Your task to perform on an android device: open app "Move to iOS" (install if not already installed) and go to login screen Image 0: 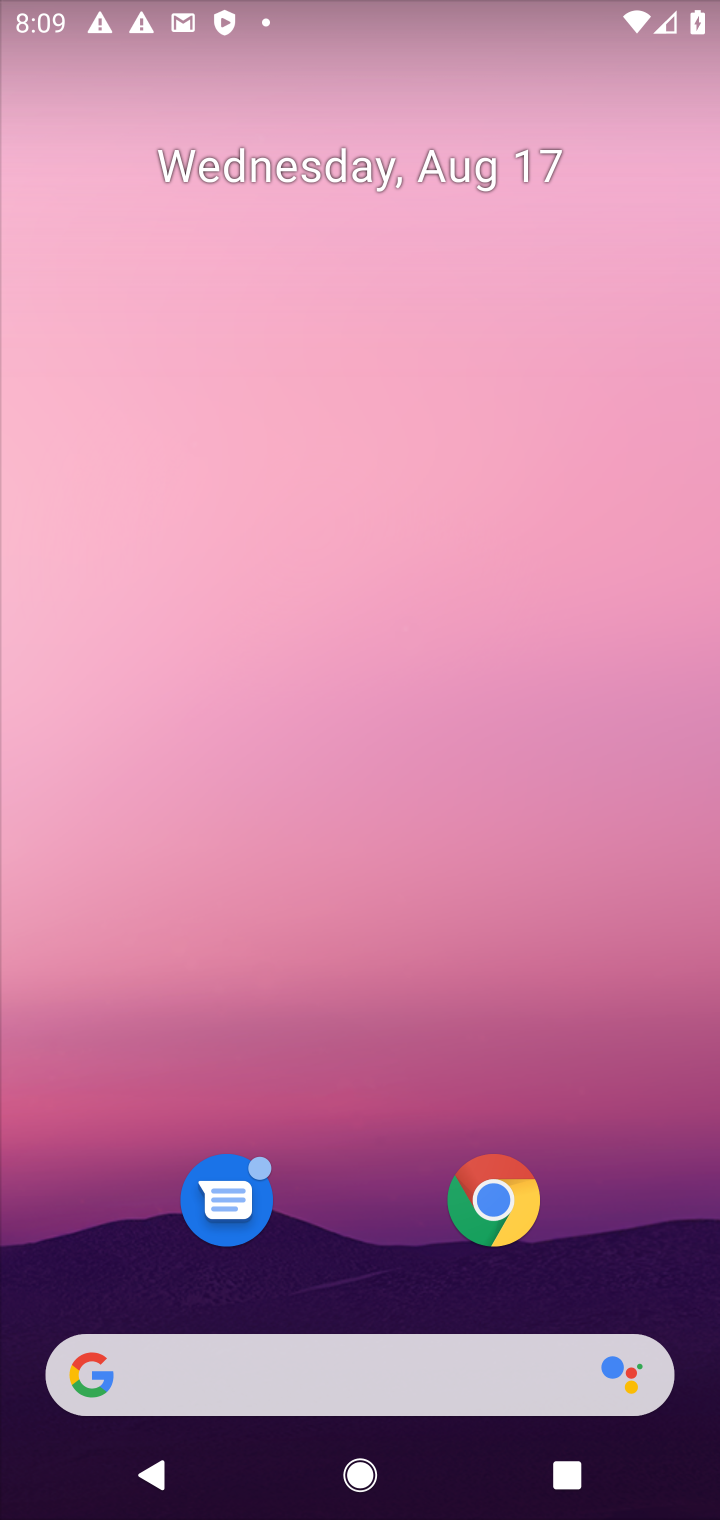
Step 0: drag from (269, 1398) to (318, 214)
Your task to perform on an android device: open app "Move to iOS" (install if not already installed) and go to login screen Image 1: 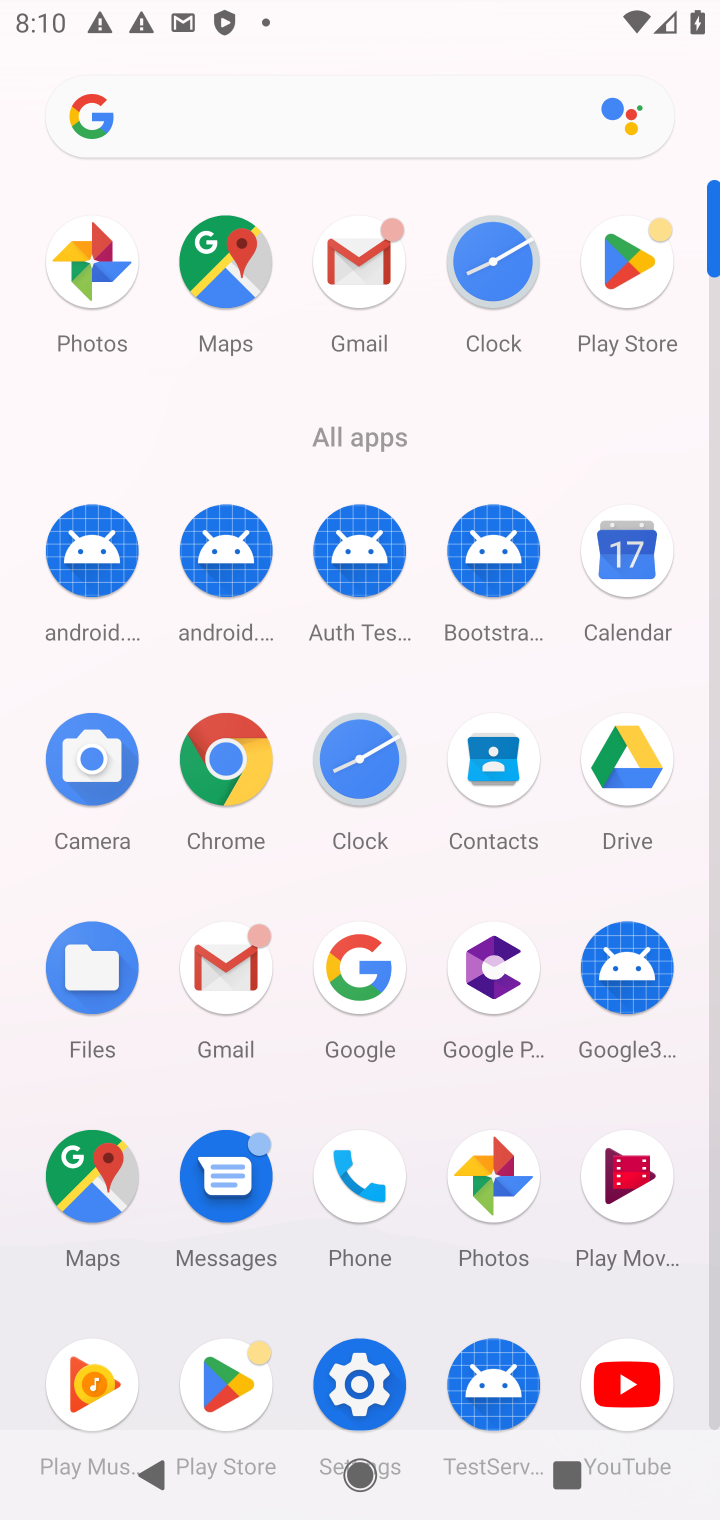
Step 1: click (635, 259)
Your task to perform on an android device: open app "Move to iOS" (install if not already installed) and go to login screen Image 2: 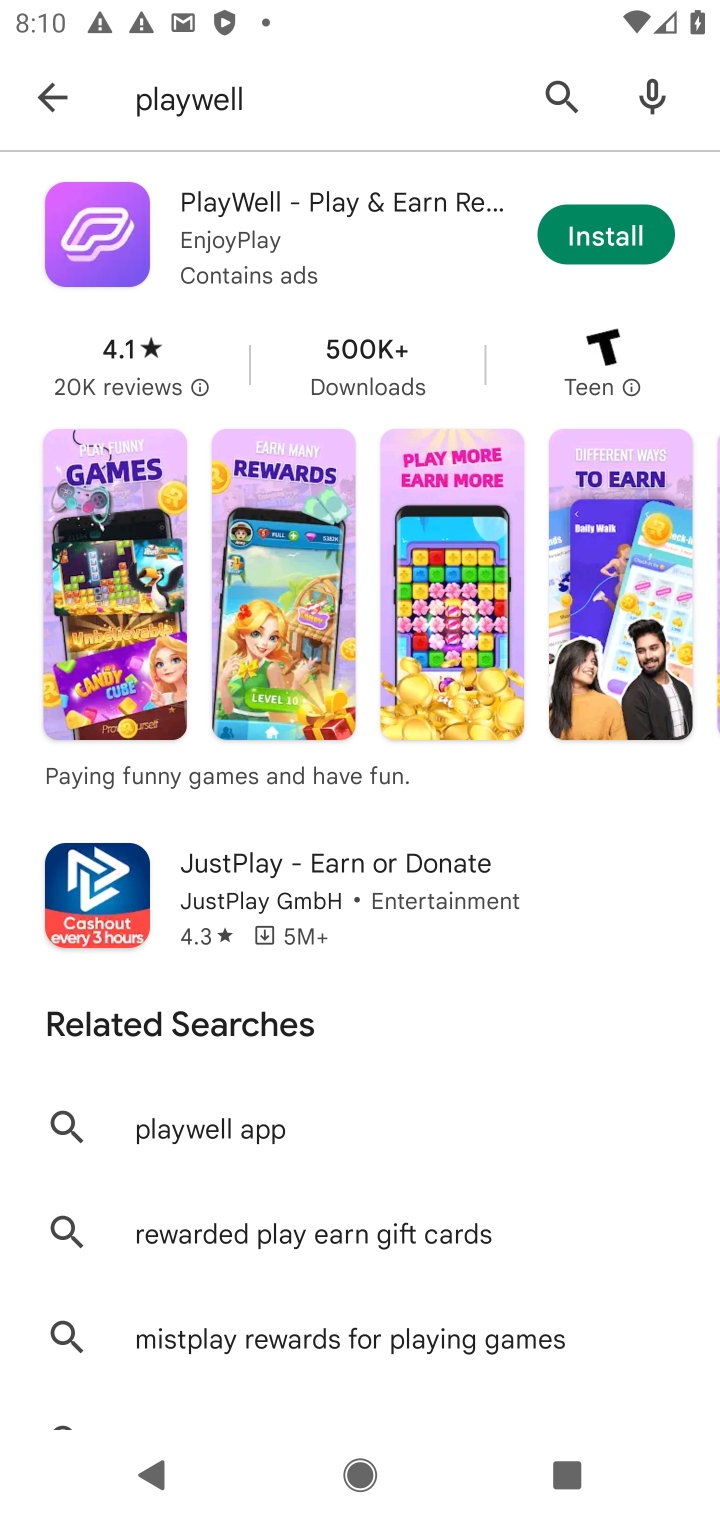
Step 2: press back button
Your task to perform on an android device: open app "Move to iOS" (install if not already installed) and go to login screen Image 3: 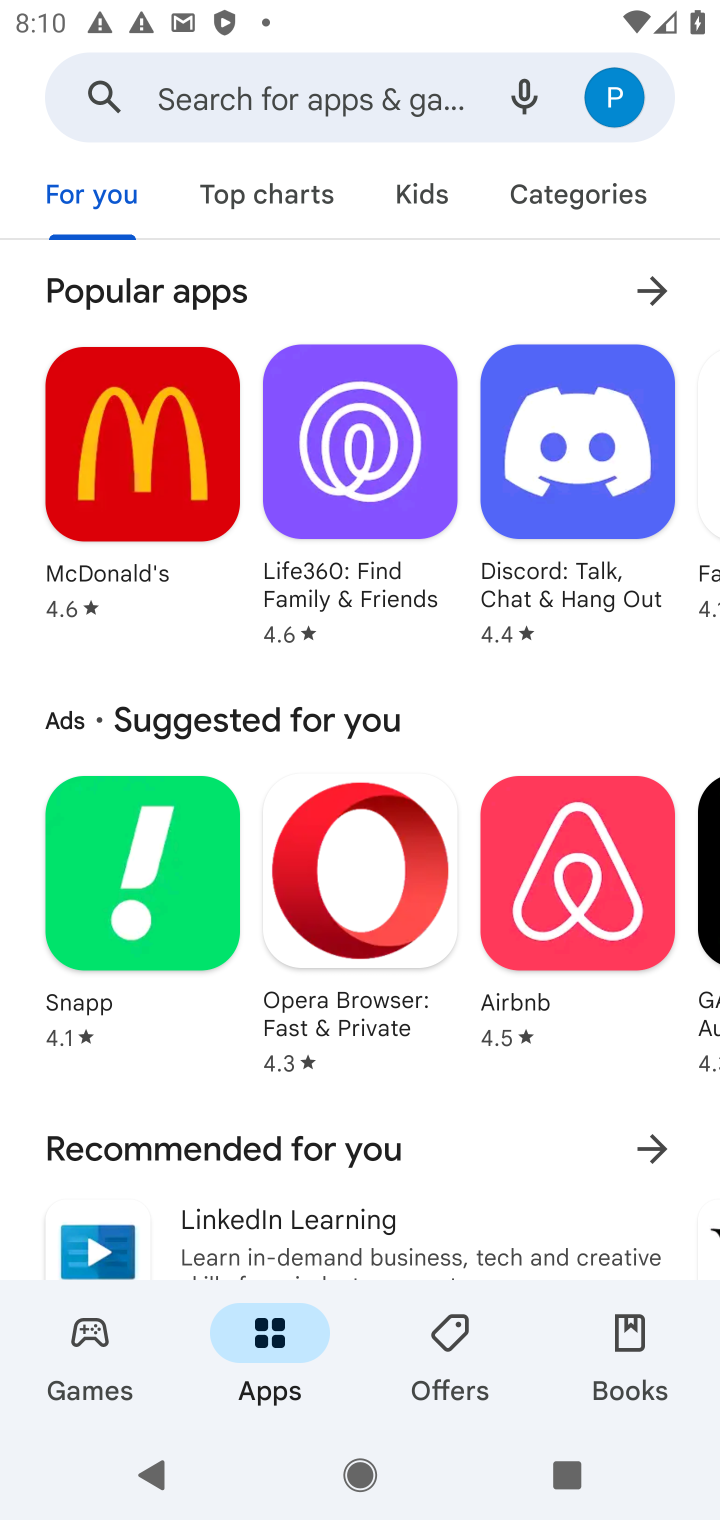
Step 3: click (410, 93)
Your task to perform on an android device: open app "Move to iOS" (install if not already installed) and go to login screen Image 4: 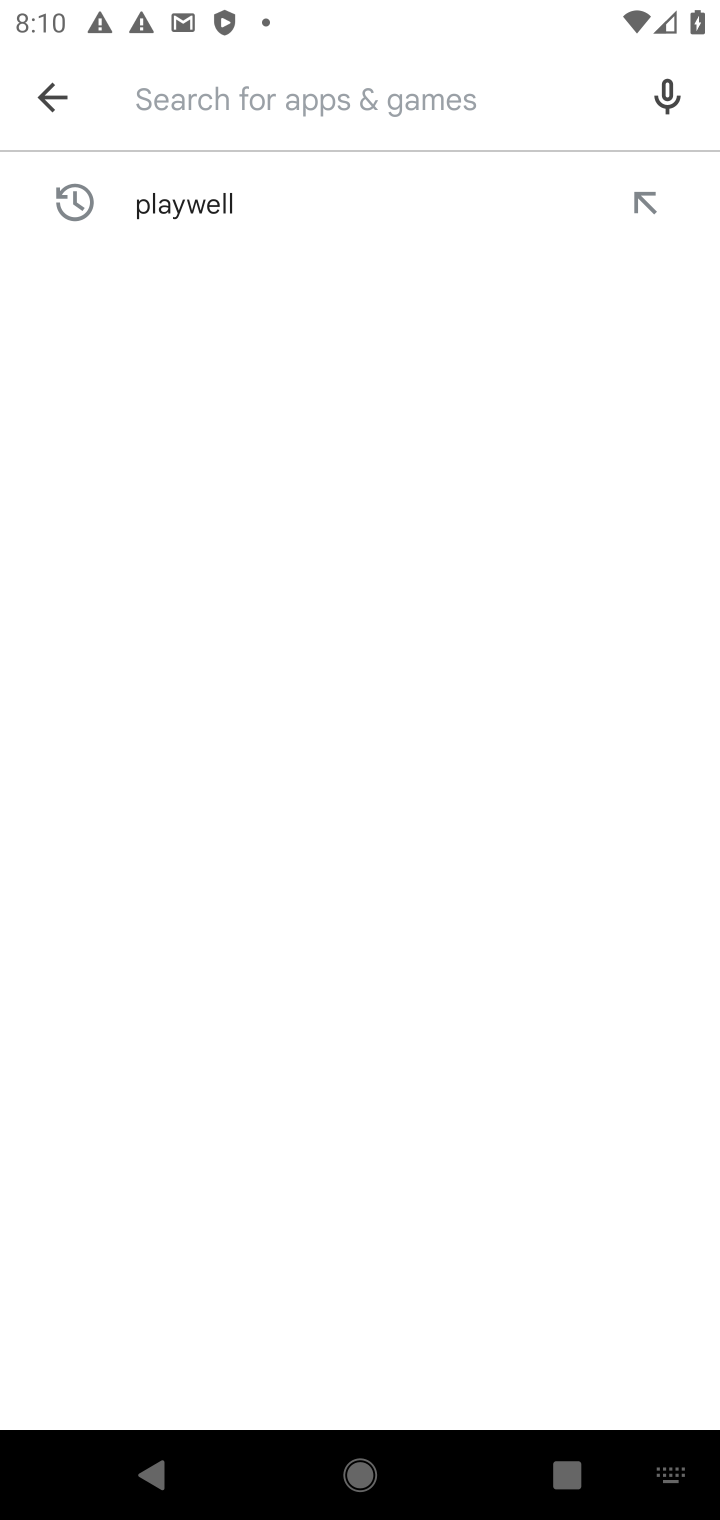
Step 4: type "Move to iOS"
Your task to perform on an android device: open app "Move to iOS" (install if not already installed) and go to login screen Image 5: 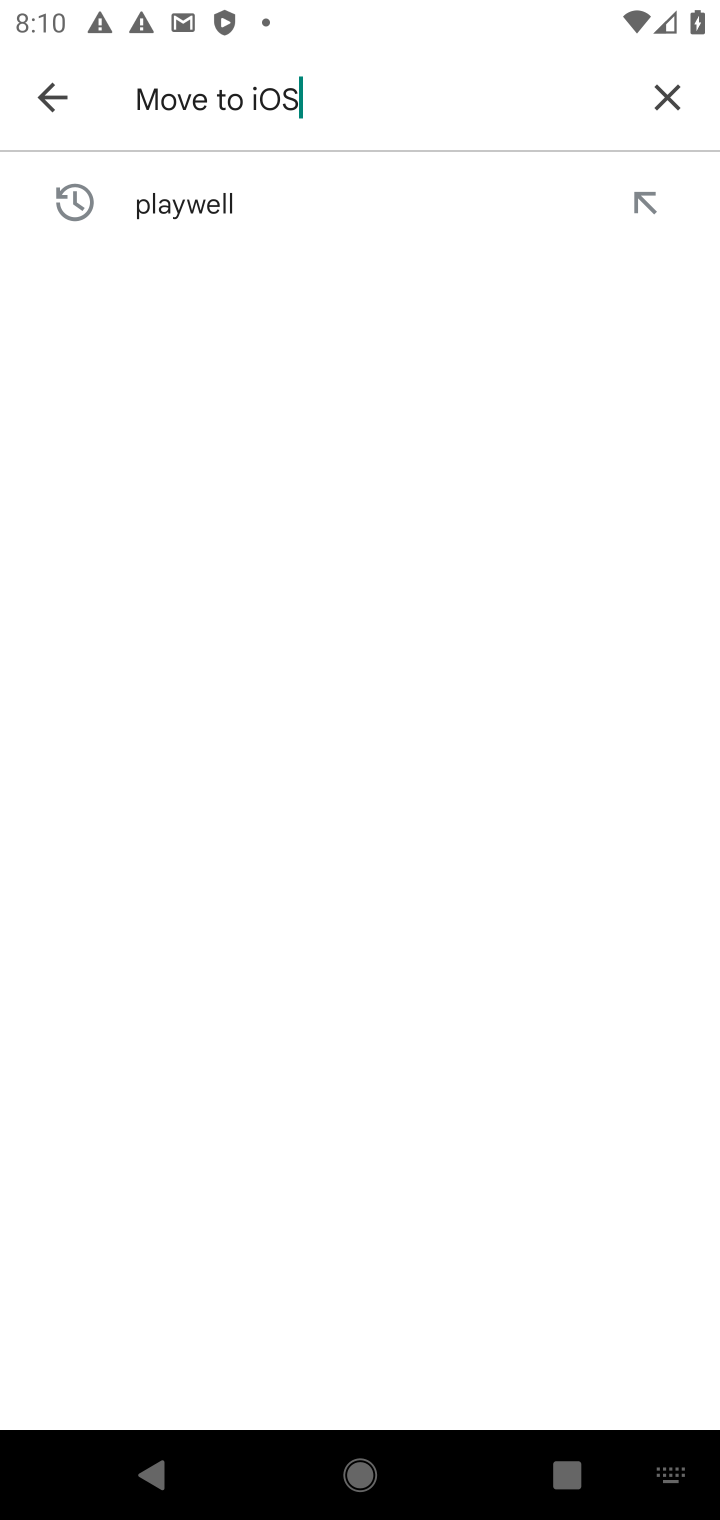
Step 5: type ""
Your task to perform on an android device: open app "Move to iOS" (install if not already installed) and go to login screen Image 6: 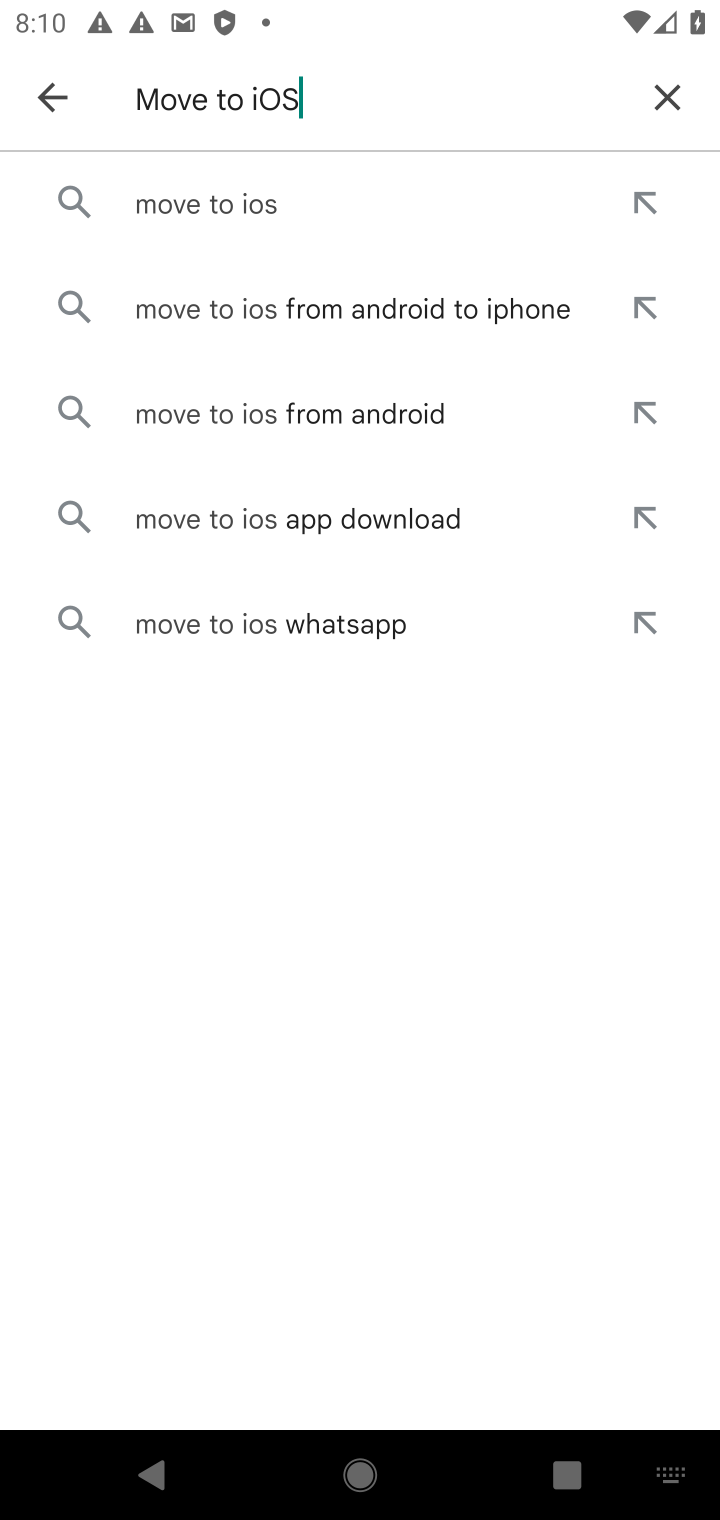
Step 6: click (242, 212)
Your task to perform on an android device: open app "Move to iOS" (install if not already installed) and go to login screen Image 7: 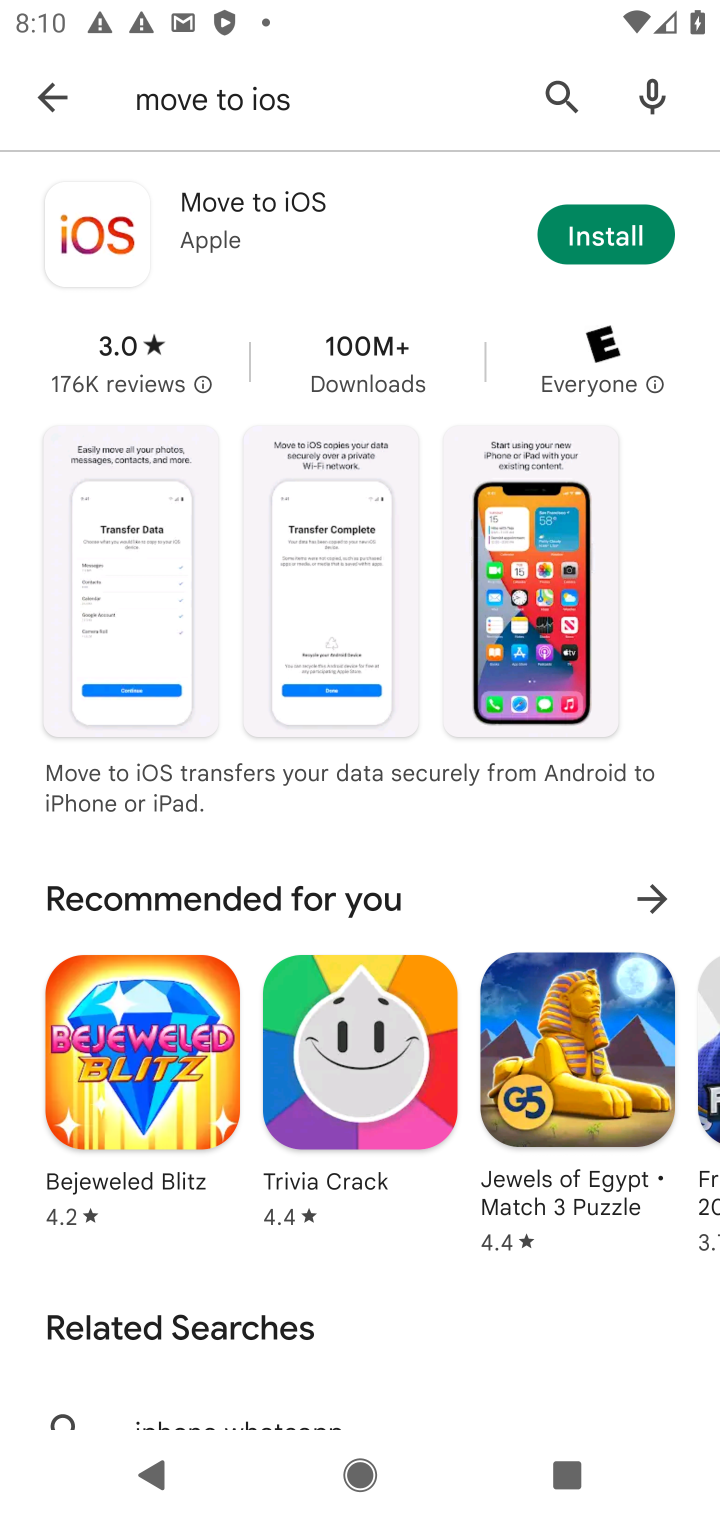
Step 7: click (608, 241)
Your task to perform on an android device: open app "Move to iOS" (install if not already installed) and go to login screen Image 8: 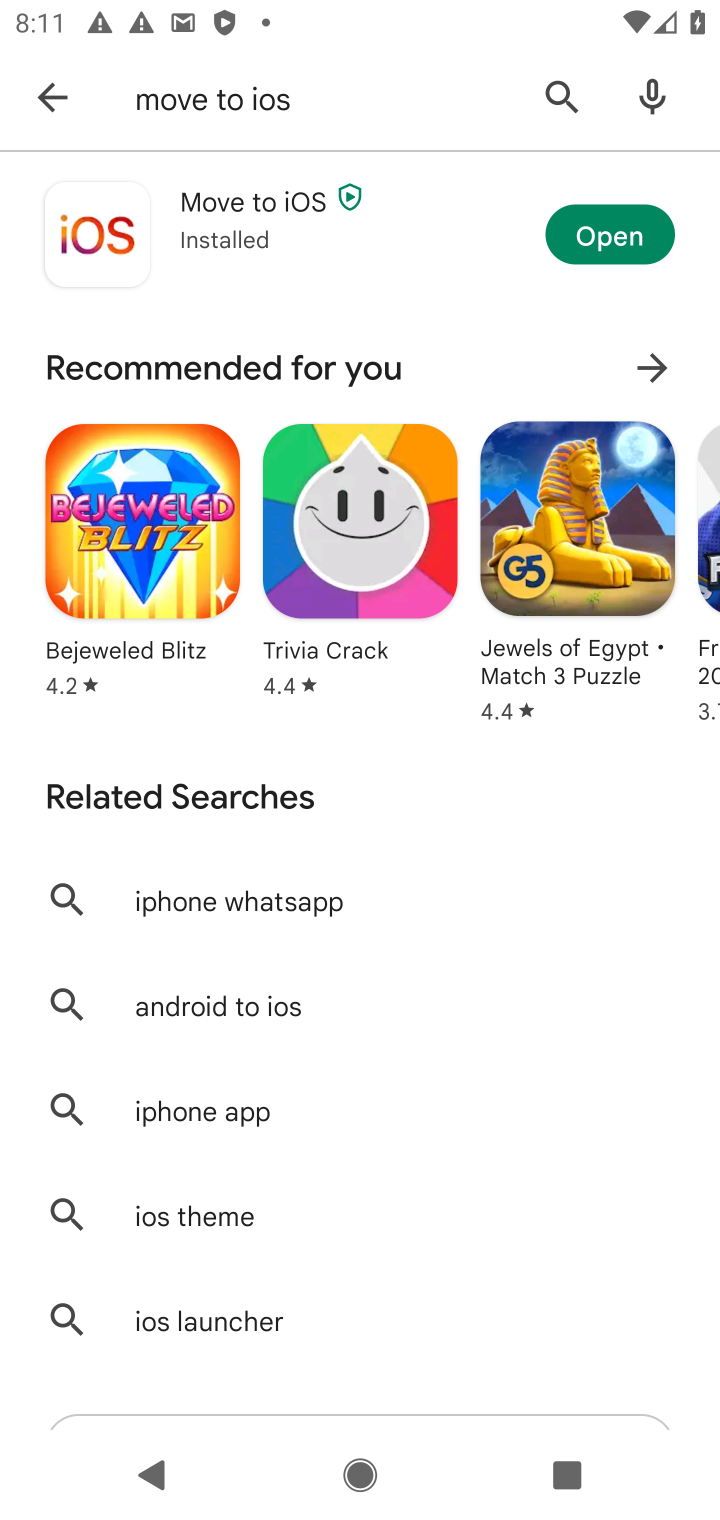
Step 8: click (608, 241)
Your task to perform on an android device: open app "Move to iOS" (install if not already installed) and go to login screen Image 9: 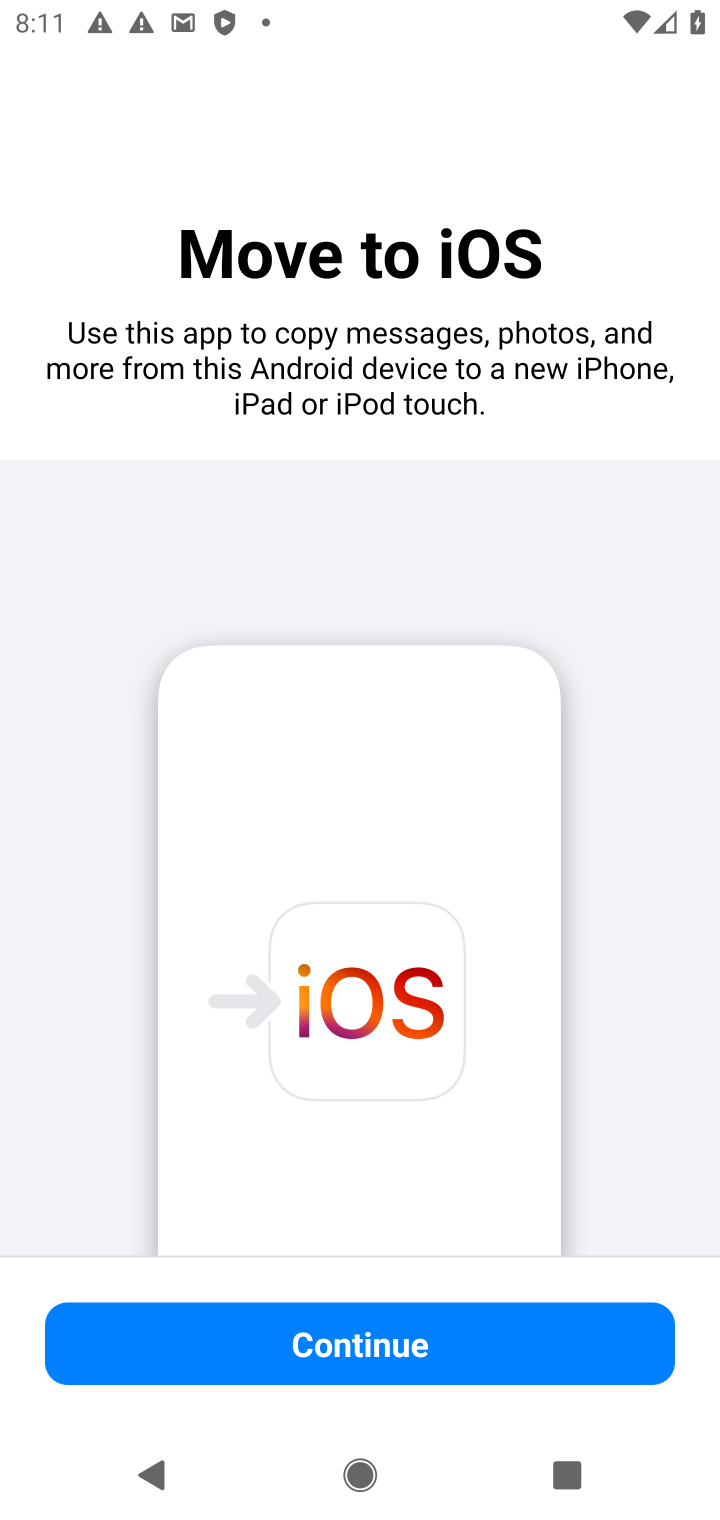
Step 9: click (340, 1356)
Your task to perform on an android device: open app "Move to iOS" (install if not already installed) and go to login screen Image 10: 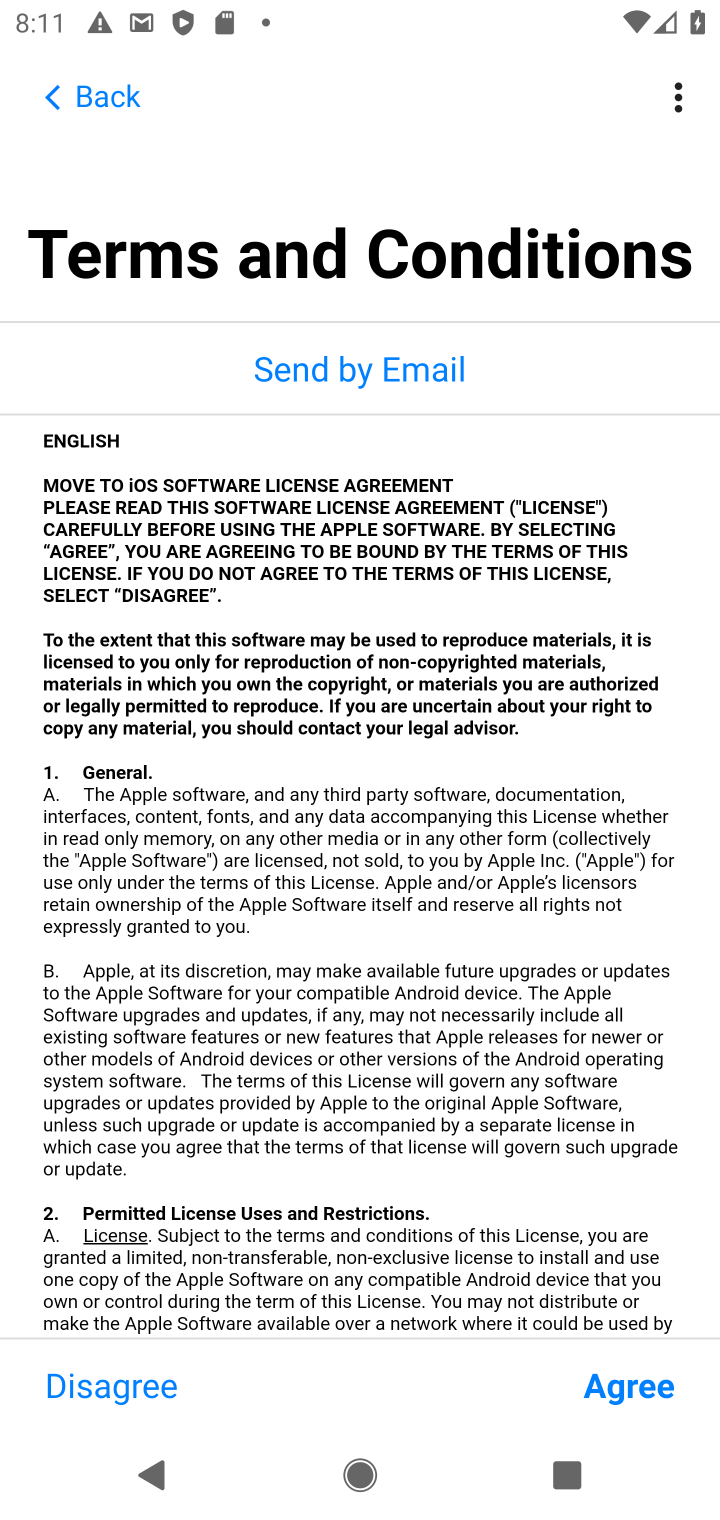
Step 10: click (611, 1373)
Your task to perform on an android device: open app "Move to iOS" (install if not already installed) and go to login screen Image 11: 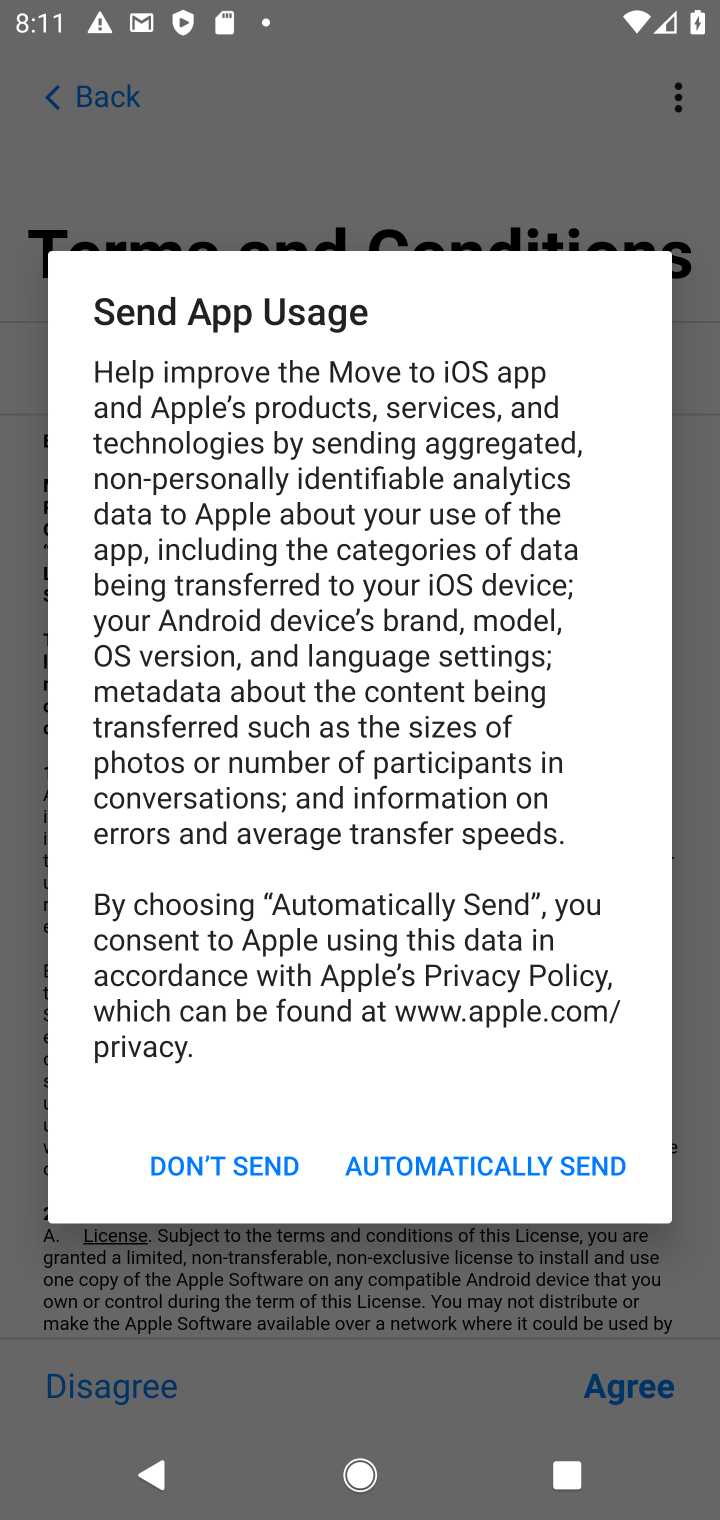
Step 11: click (251, 1166)
Your task to perform on an android device: open app "Move to iOS" (install if not already installed) and go to login screen Image 12: 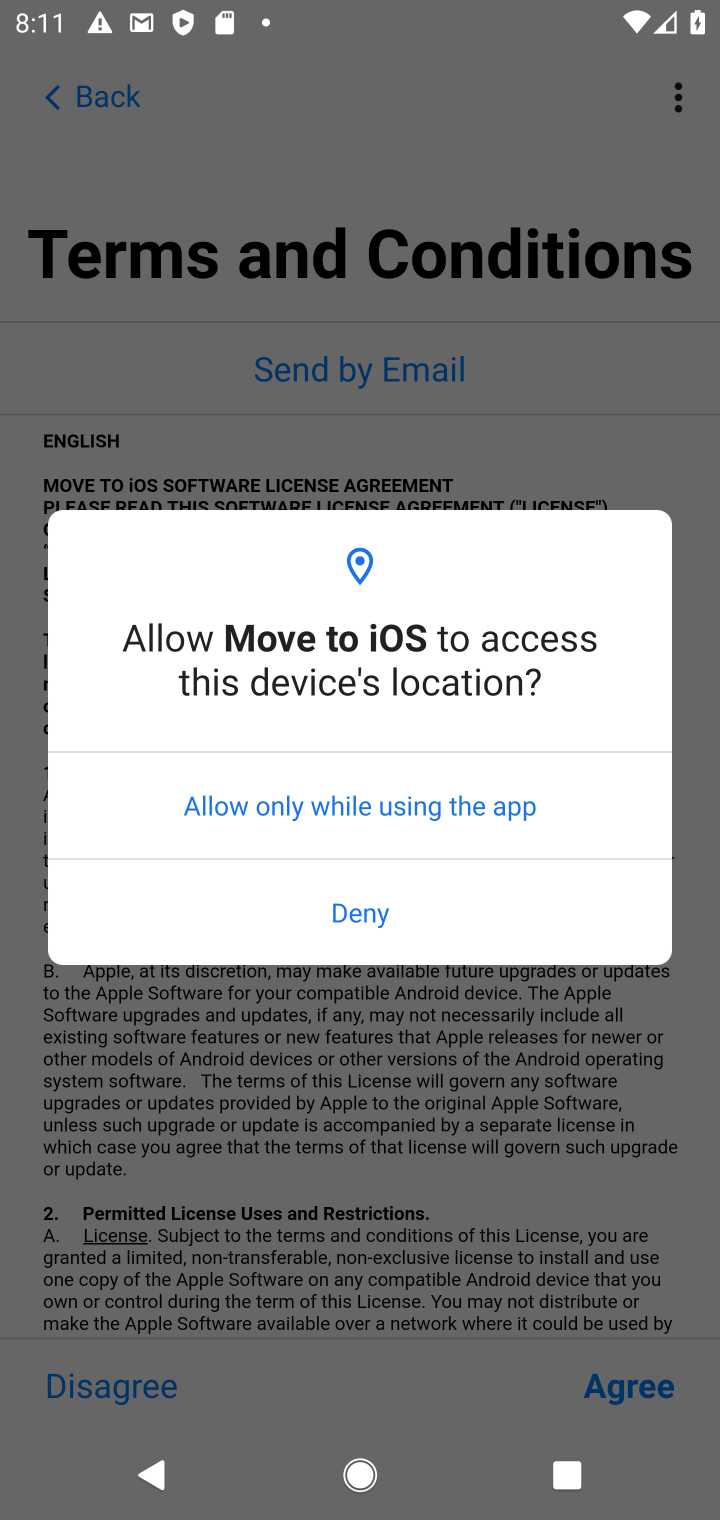
Step 12: click (397, 788)
Your task to perform on an android device: open app "Move to iOS" (install if not already installed) and go to login screen Image 13: 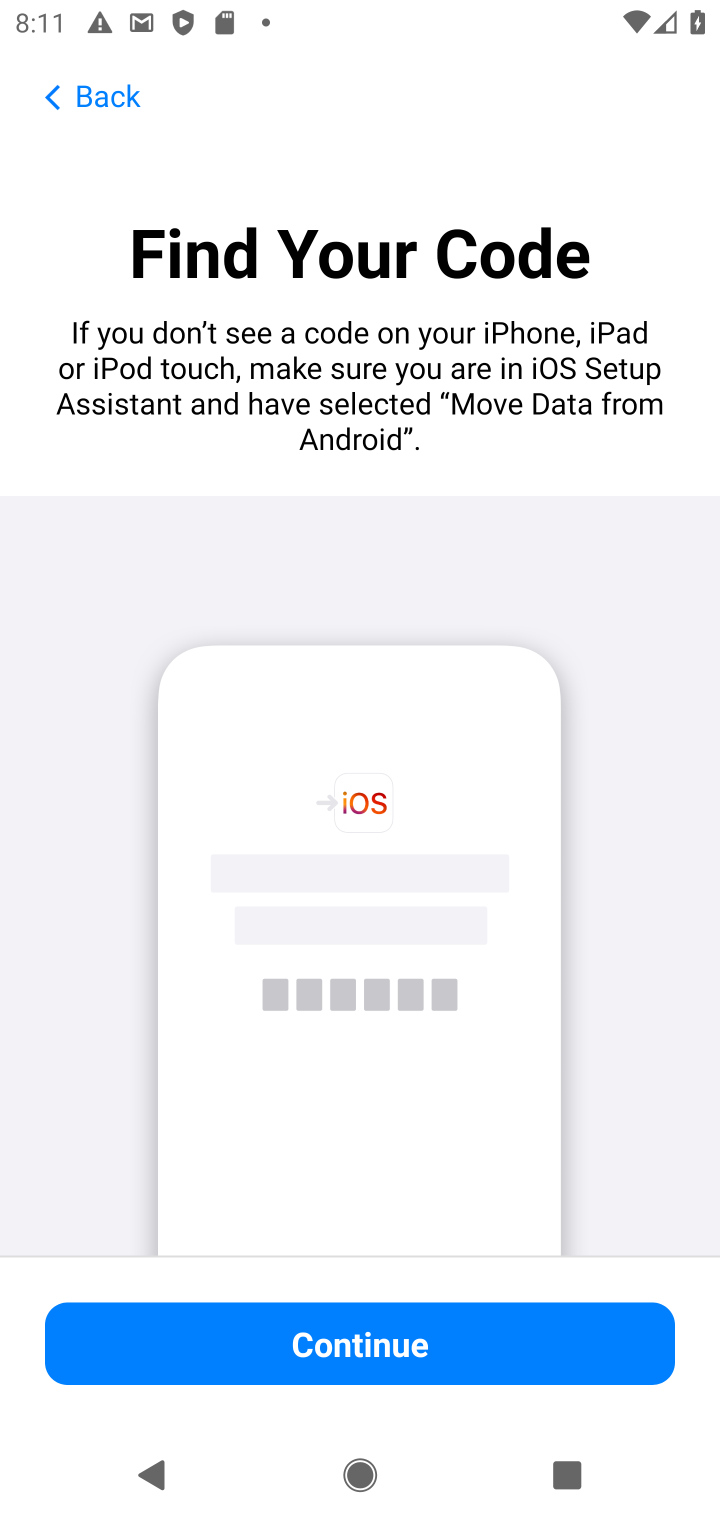
Step 13: click (395, 1345)
Your task to perform on an android device: open app "Move to iOS" (install if not already installed) and go to login screen Image 14: 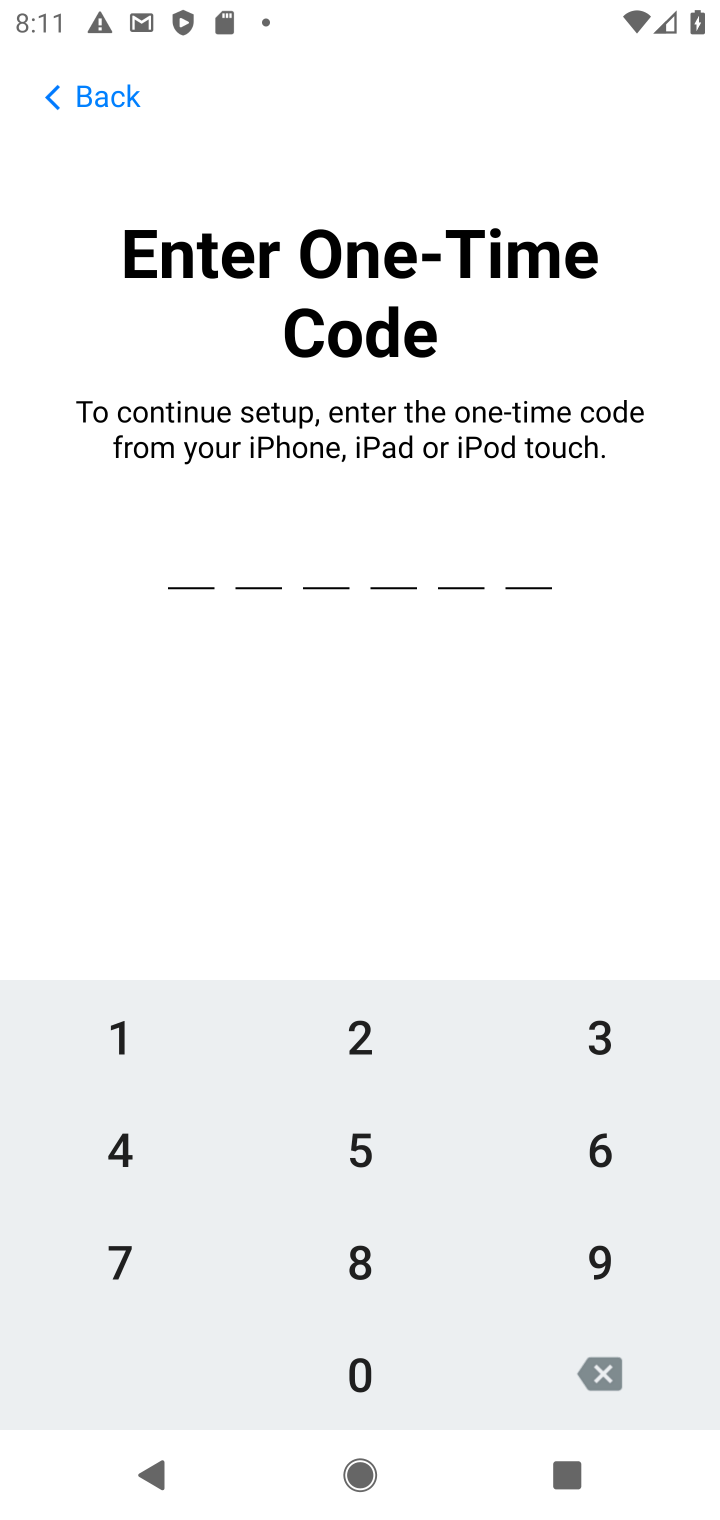
Step 14: task complete